Your task to perform on an android device: turn off location history Image 0: 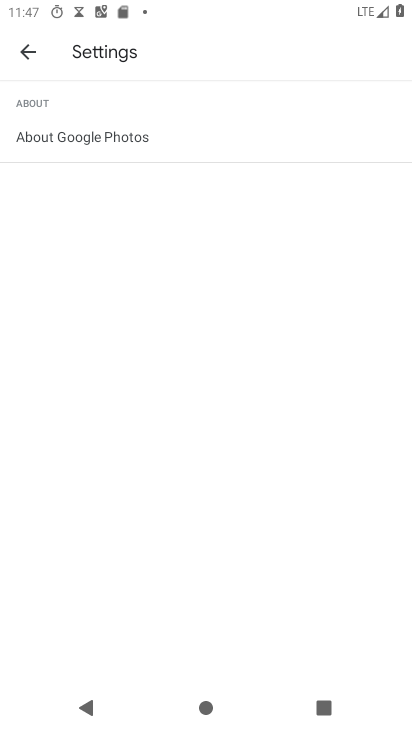
Step 0: press home button
Your task to perform on an android device: turn off location history Image 1: 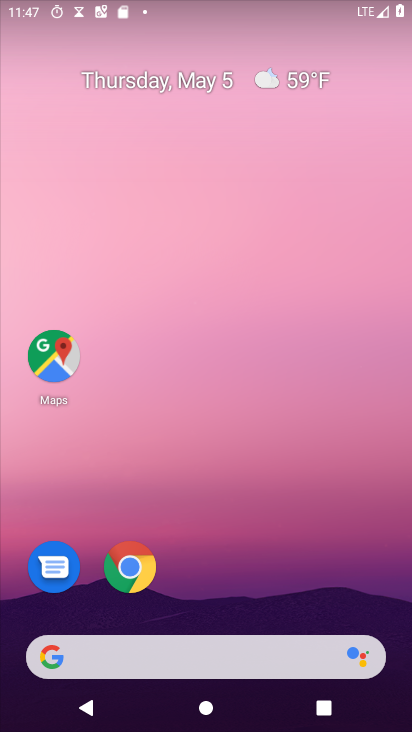
Step 1: click (57, 351)
Your task to perform on an android device: turn off location history Image 2: 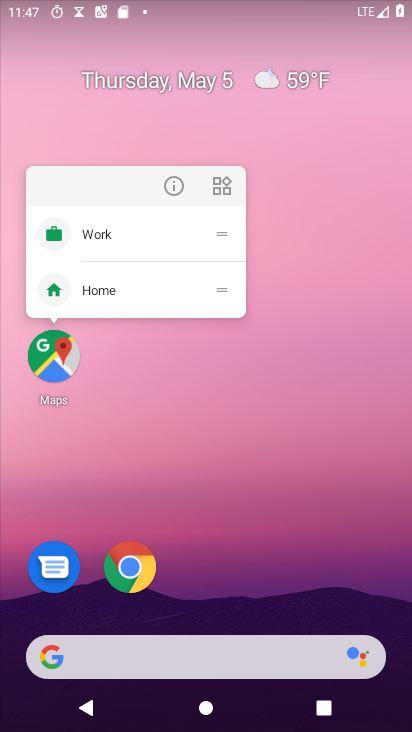
Step 2: click (43, 379)
Your task to perform on an android device: turn off location history Image 3: 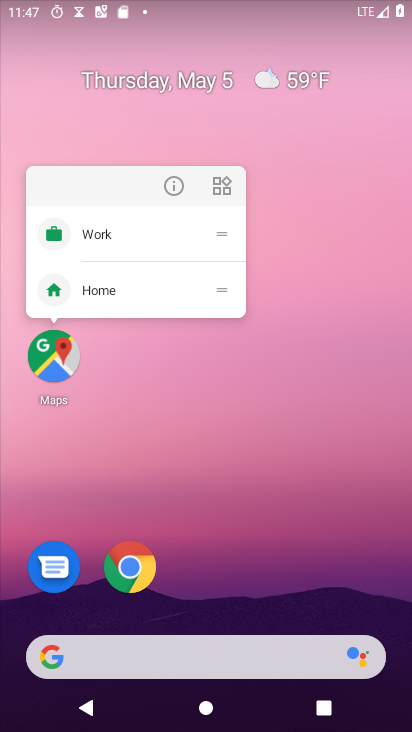
Step 3: click (50, 368)
Your task to perform on an android device: turn off location history Image 4: 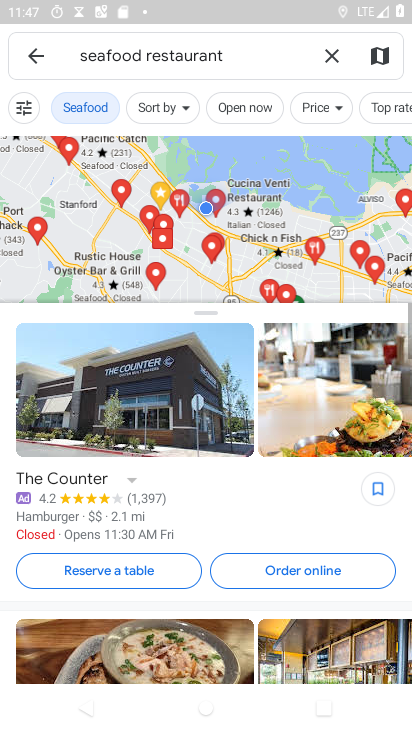
Step 4: click (323, 59)
Your task to perform on an android device: turn off location history Image 5: 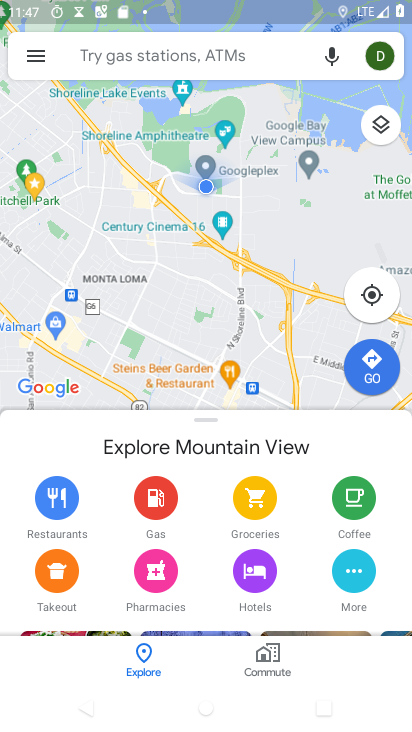
Step 5: click (49, 55)
Your task to perform on an android device: turn off location history Image 6: 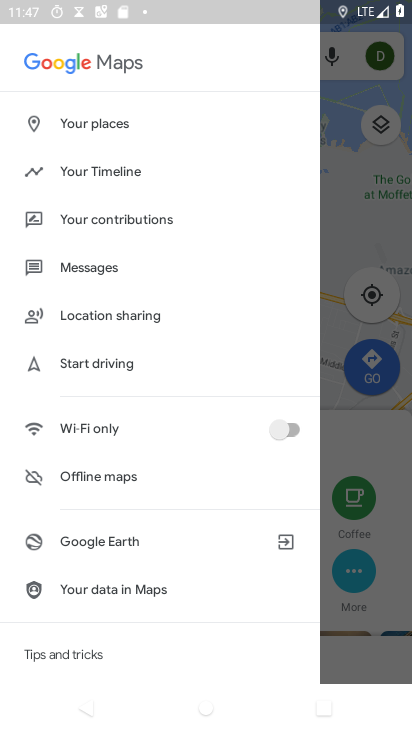
Step 6: click (120, 171)
Your task to perform on an android device: turn off location history Image 7: 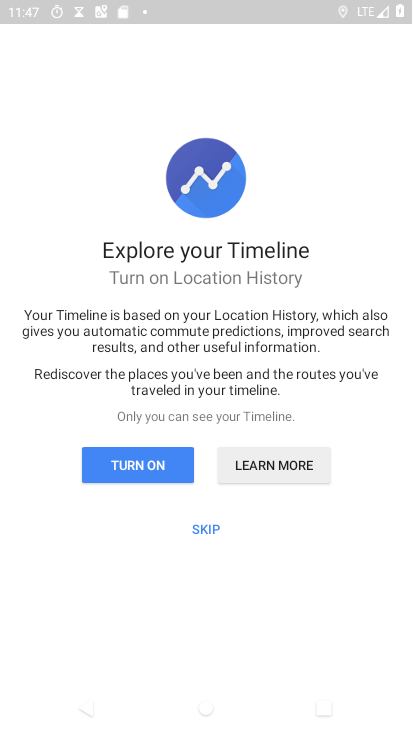
Step 7: click (216, 528)
Your task to perform on an android device: turn off location history Image 8: 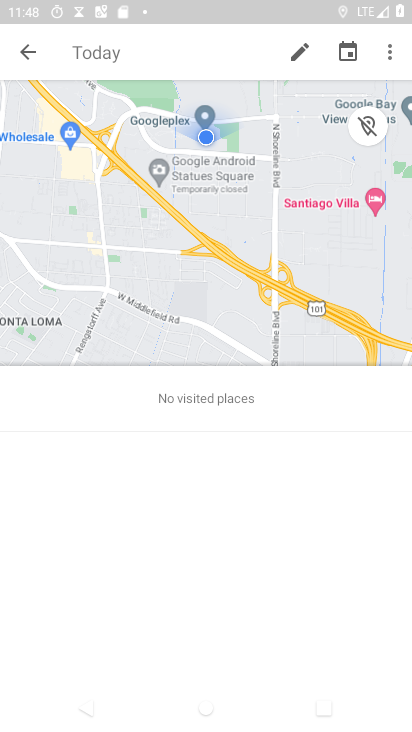
Step 8: click (391, 53)
Your task to perform on an android device: turn off location history Image 9: 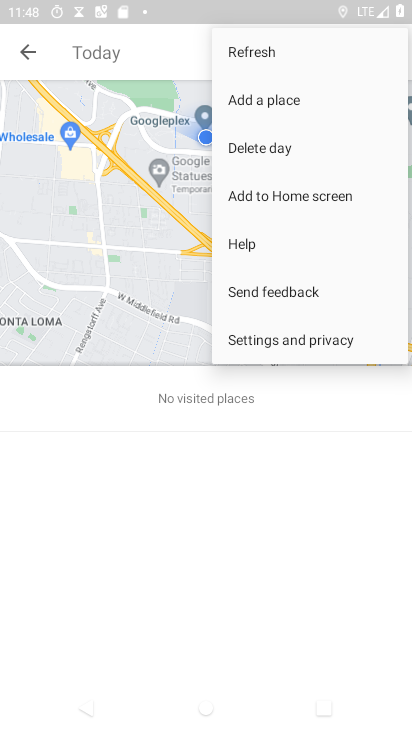
Step 9: click (242, 338)
Your task to perform on an android device: turn off location history Image 10: 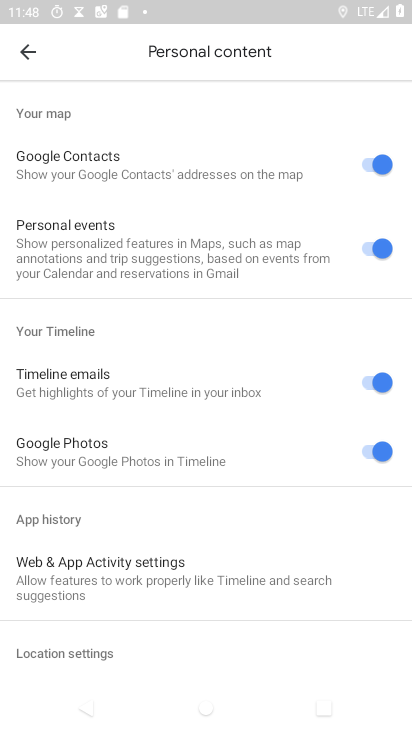
Step 10: drag from (164, 506) to (190, 236)
Your task to perform on an android device: turn off location history Image 11: 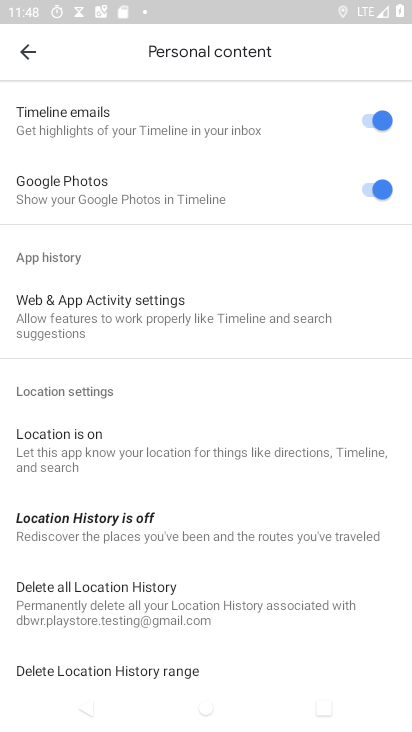
Step 11: click (115, 529)
Your task to perform on an android device: turn off location history Image 12: 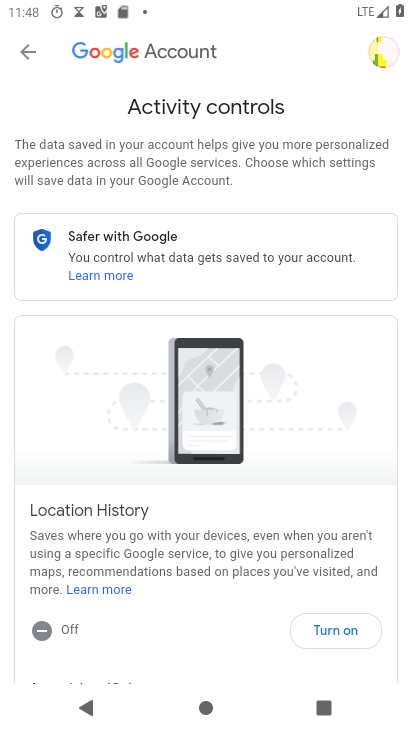
Step 12: task complete